Your task to perform on an android device: Go to Google Image 0: 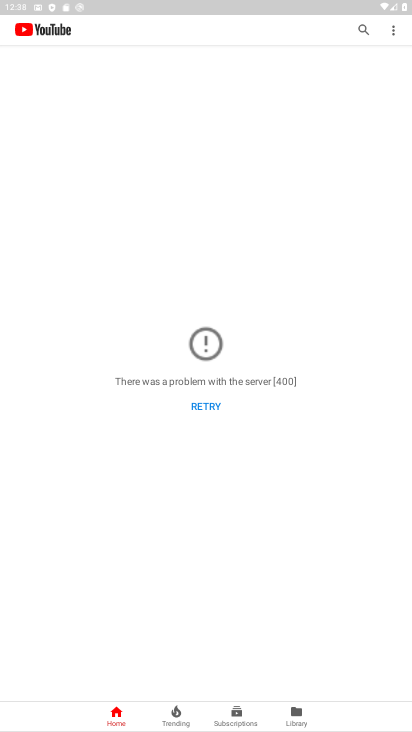
Step 0: press home button
Your task to perform on an android device: Go to Google Image 1: 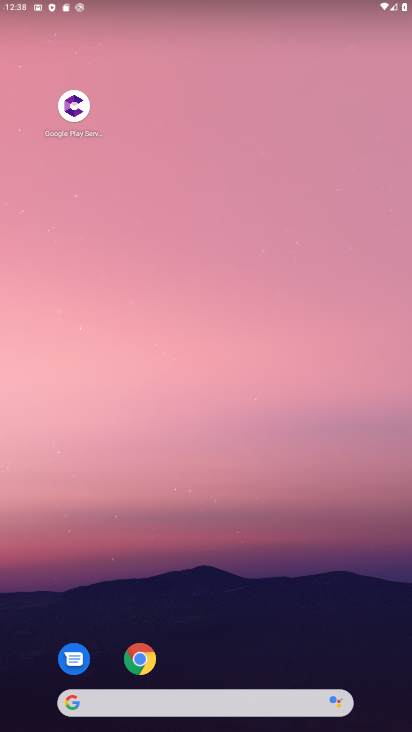
Step 1: click (136, 696)
Your task to perform on an android device: Go to Google Image 2: 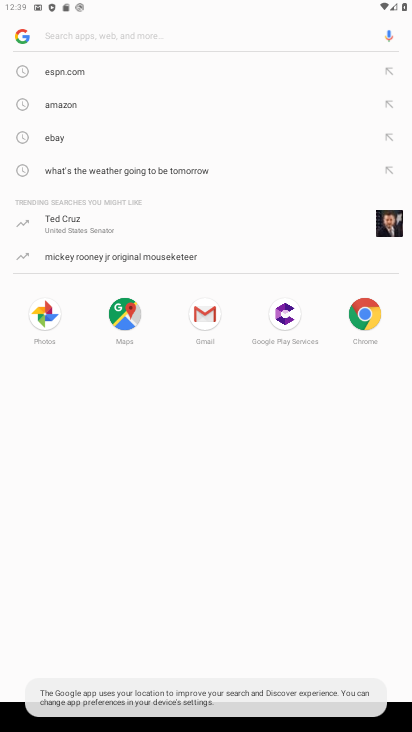
Step 2: click (18, 36)
Your task to perform on an android device: Go to Google Image 3: 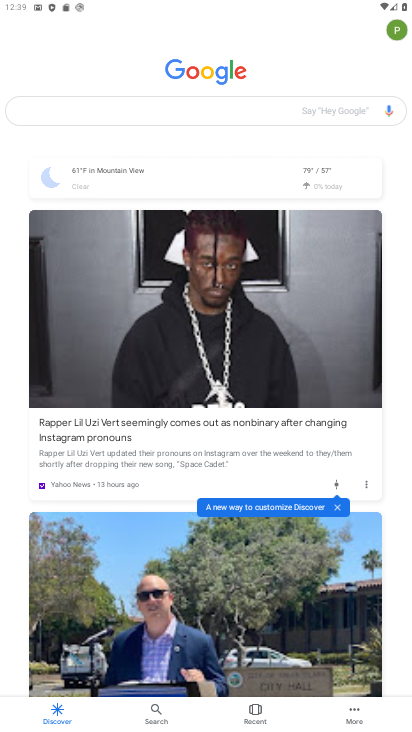
Step 3: task complete